Your task to perform on an android device: Search for usb-c to usb-b on target.com, select the first entry, add it to the cart, then select checkout. Image 0: 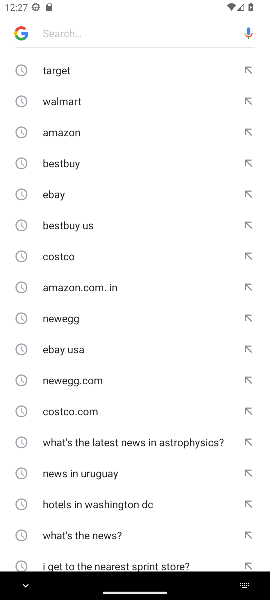
Step 0: type "target"
Your task to perform on an android device: Search for usb-c to usb-b on target.com, select the first entry, add it to the cart, then select checkout. Image 1: 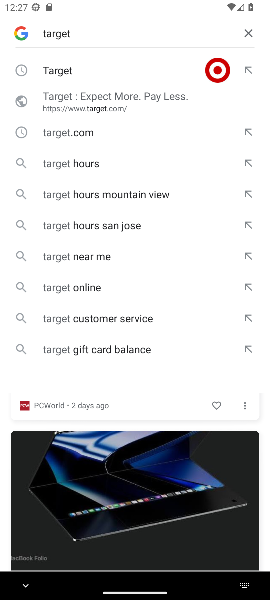
Step 1: click (80, 77)
Your task to perform on an android device: Search for usb-c to usb-b on target.com, select the first entry, add it to the cart, then select checkout. Image 2: 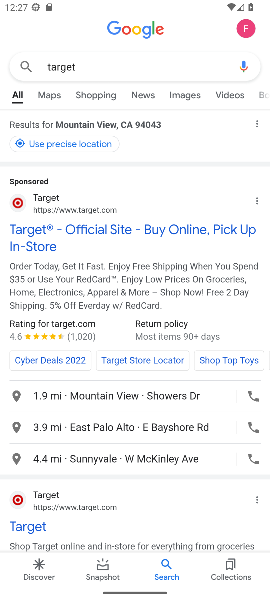
Step 2: click (95, 228)
Your task to perform on an android device: Search for usb-c to usb-b on target.com, select the first entry, add it to the cart, then select checkout. Image 3: 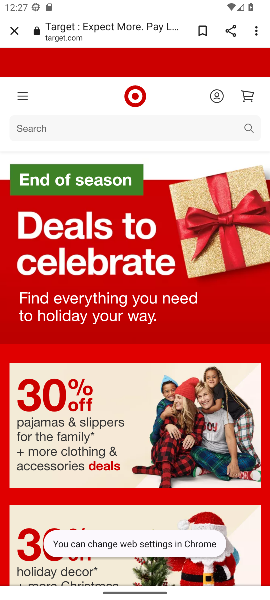
Step 3: click (162, 132)
Your task to perform on an android device: Search for usb-c to usb-b on target.com, select the first entry, add it to the cart, then select checkout. Image 4: 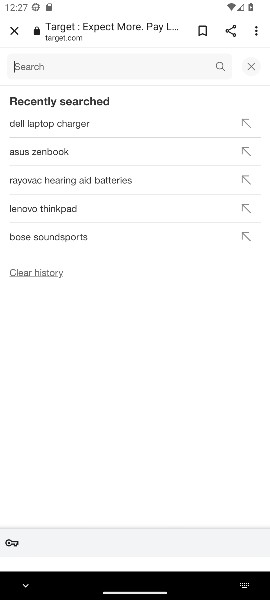
Step 4: type "usb-c to usb-b"
Your task to perform on an android device: Search for usb-c to usb-b on target.com, select the first entry, add it to the cart, then select checkout. Image 5: 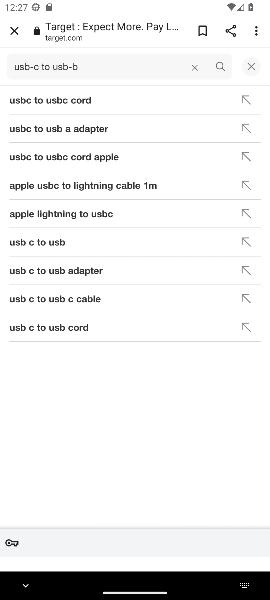
Step 5: click (227, 67)
Your task to perform on an android device: Search for usb-c to usb-b on target.com, select the first entry, add it to the cart, then select checkout. Image 6: 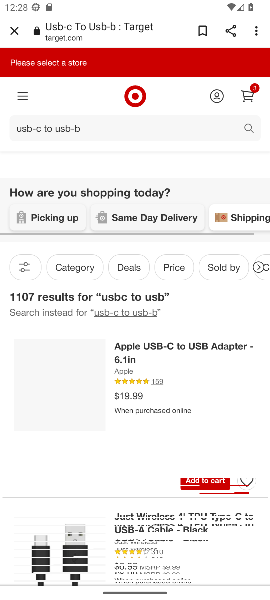
Step 6: click (189, 485)
Your task to perform on an android device: Search for usb-c to usb-b on target.com, select the first entry, add it to the cart, then select checkout. Image 7: 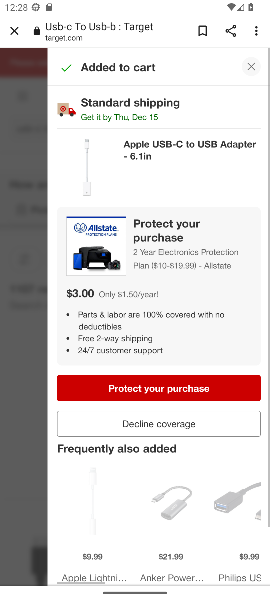
Step 7: task complete